Your task to perform on an android device: open app "Pinterest" Image 0: 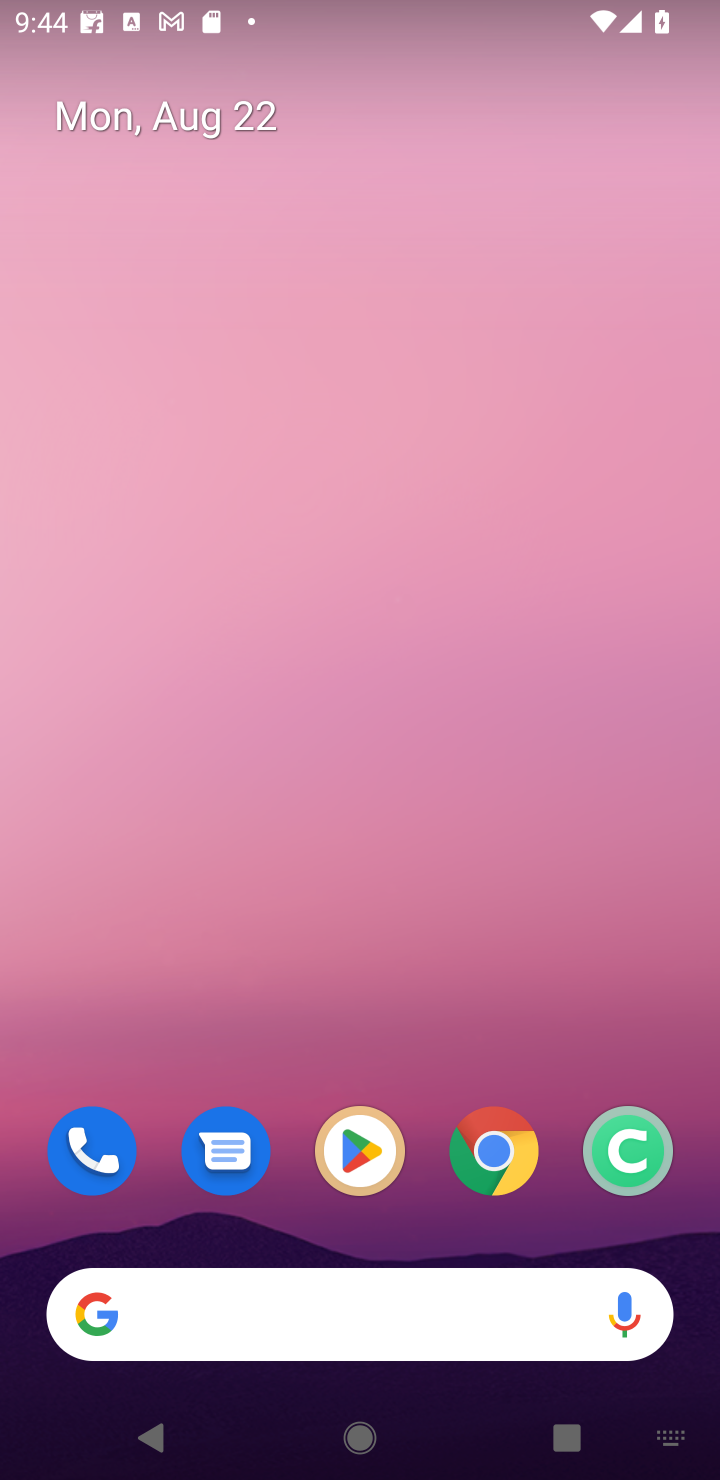
Step 0: press home button
Your task to perform on an android device: open app "Pinterest" Image 1: 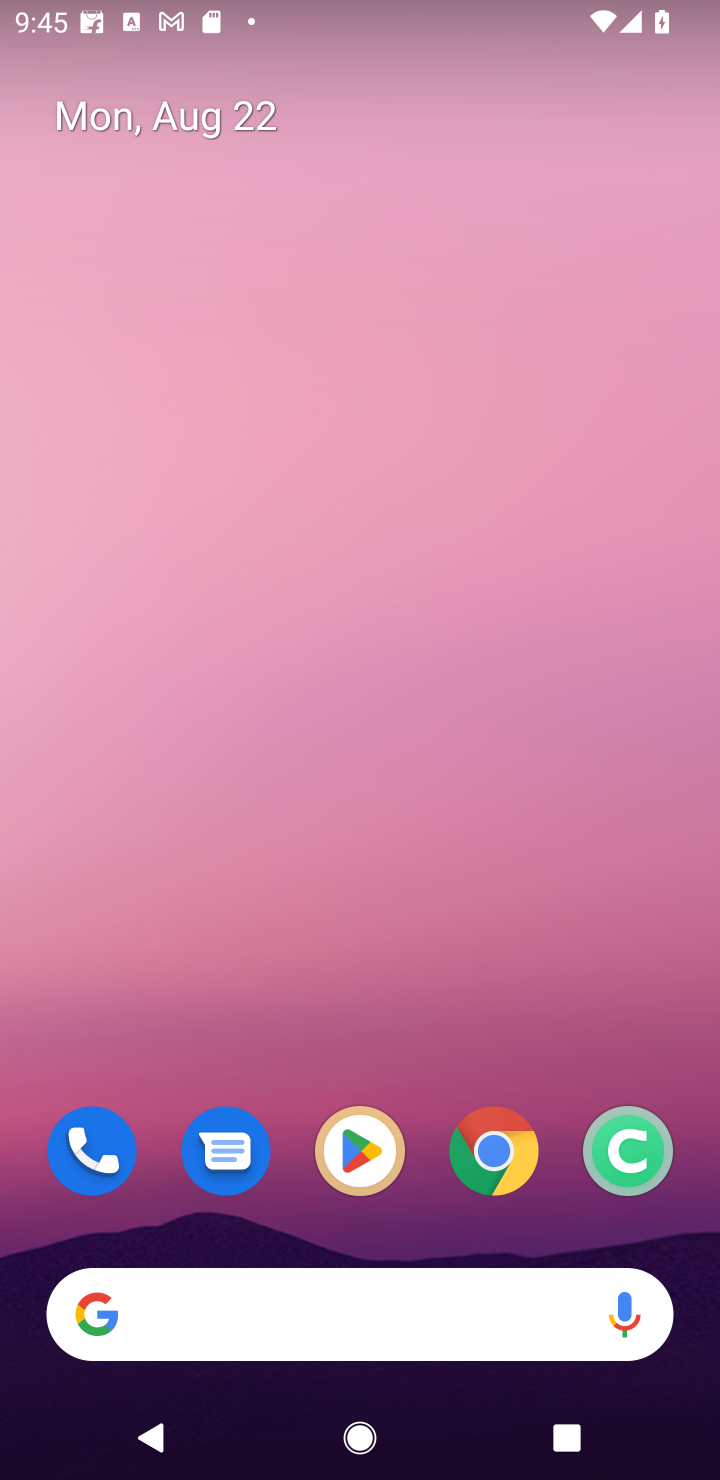
Step 1: click (363, 1157)
Your task to perform on an android device: open app "Pinterest" Image 2: 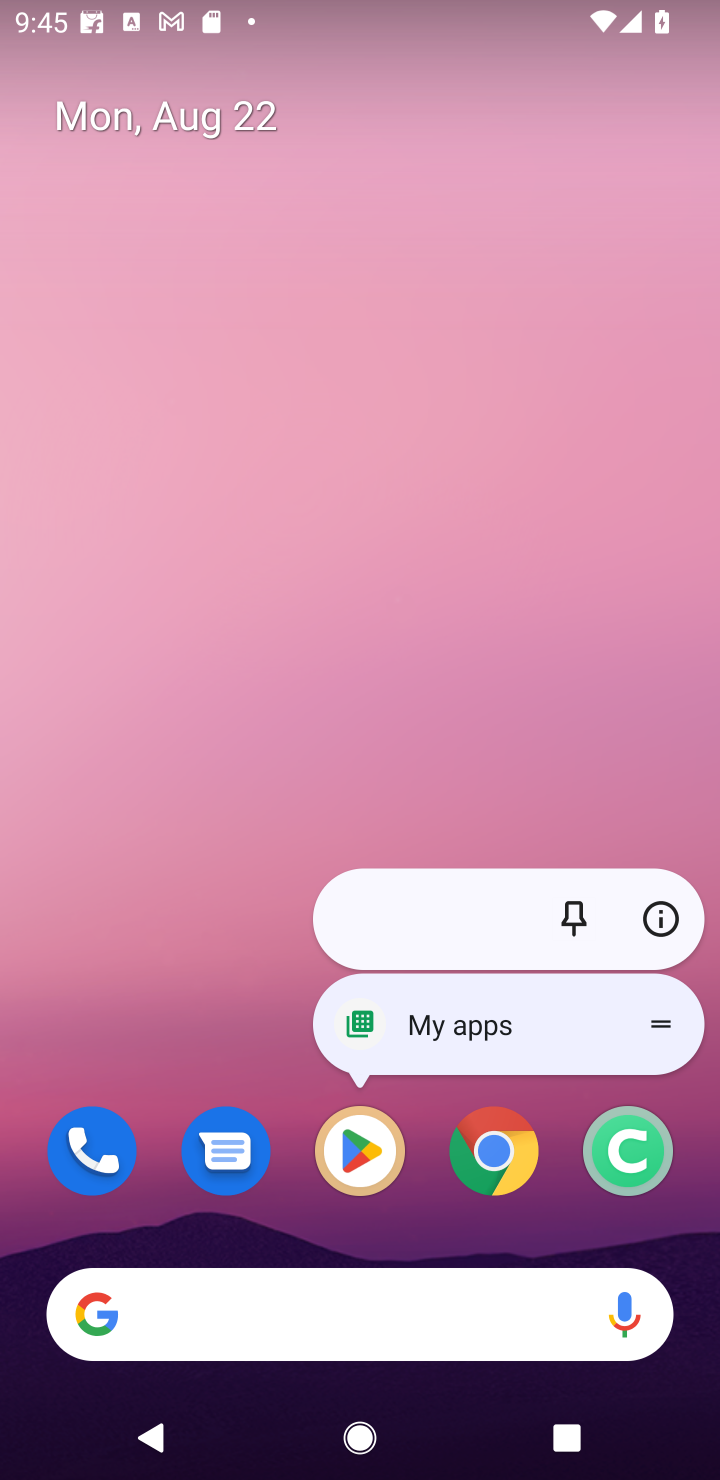
Step 2: click (363, 1171)
Your task to perform on an android device: open app "Pinterest" Image 3: 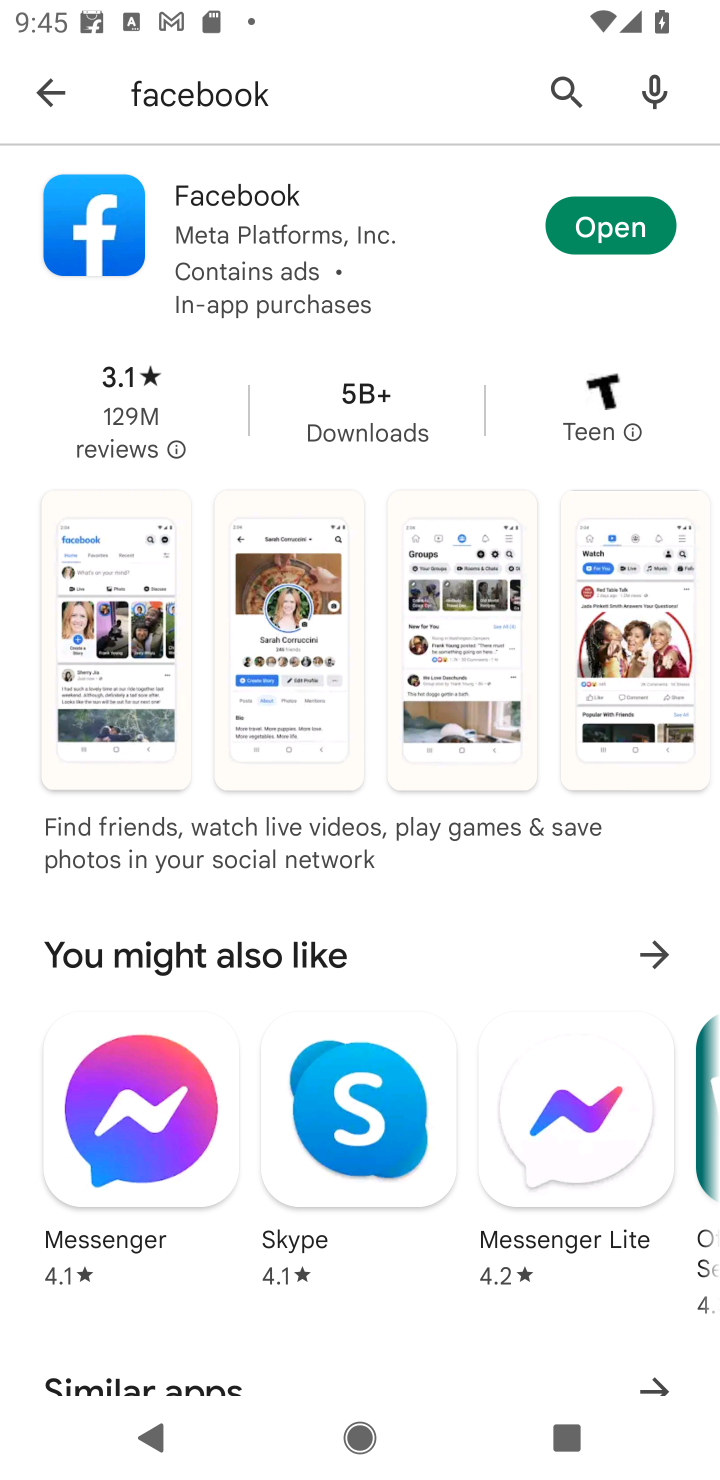
Step 3: click (556, 83)
Your task to perform on an android device: open app "Pinterest" Image 4: 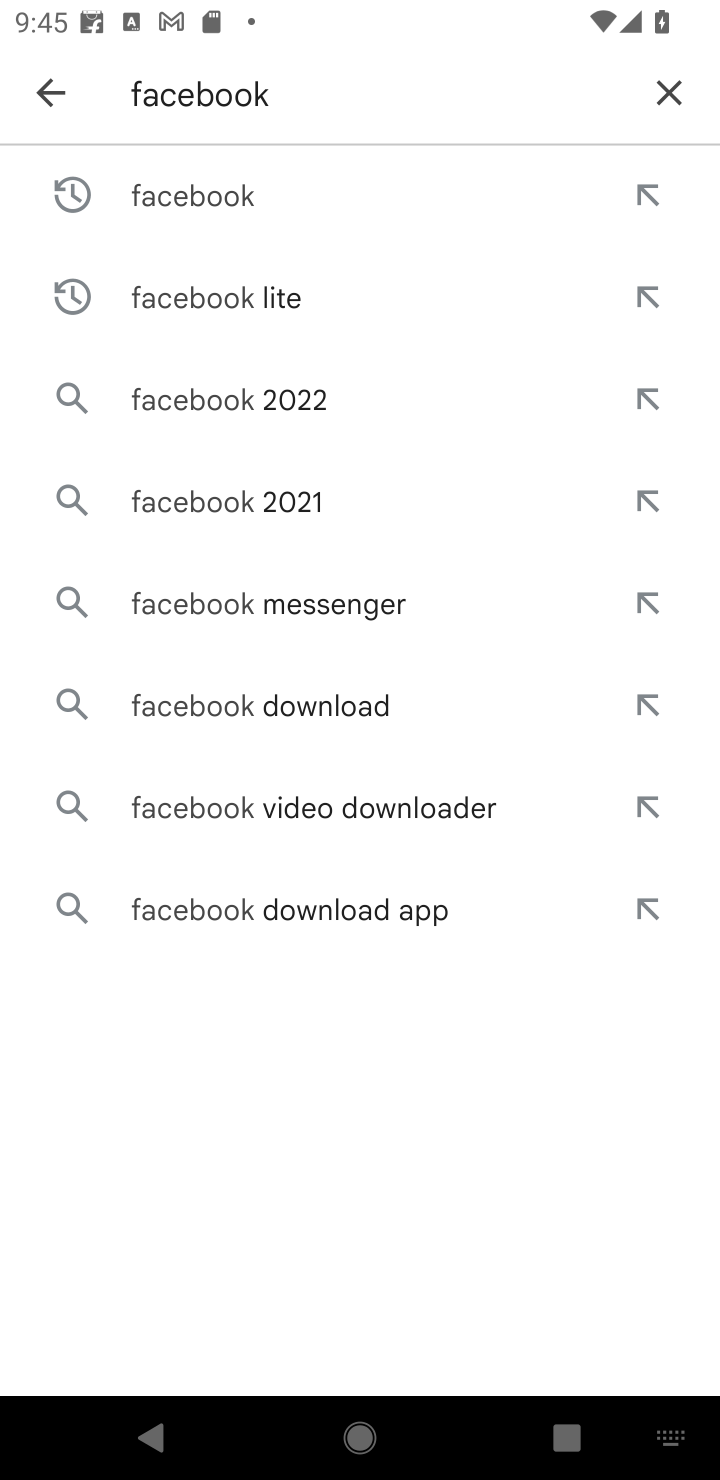
Step 4: click (659, 87)
Your task to perform on an android device: open app "Pinterest" Image 5: 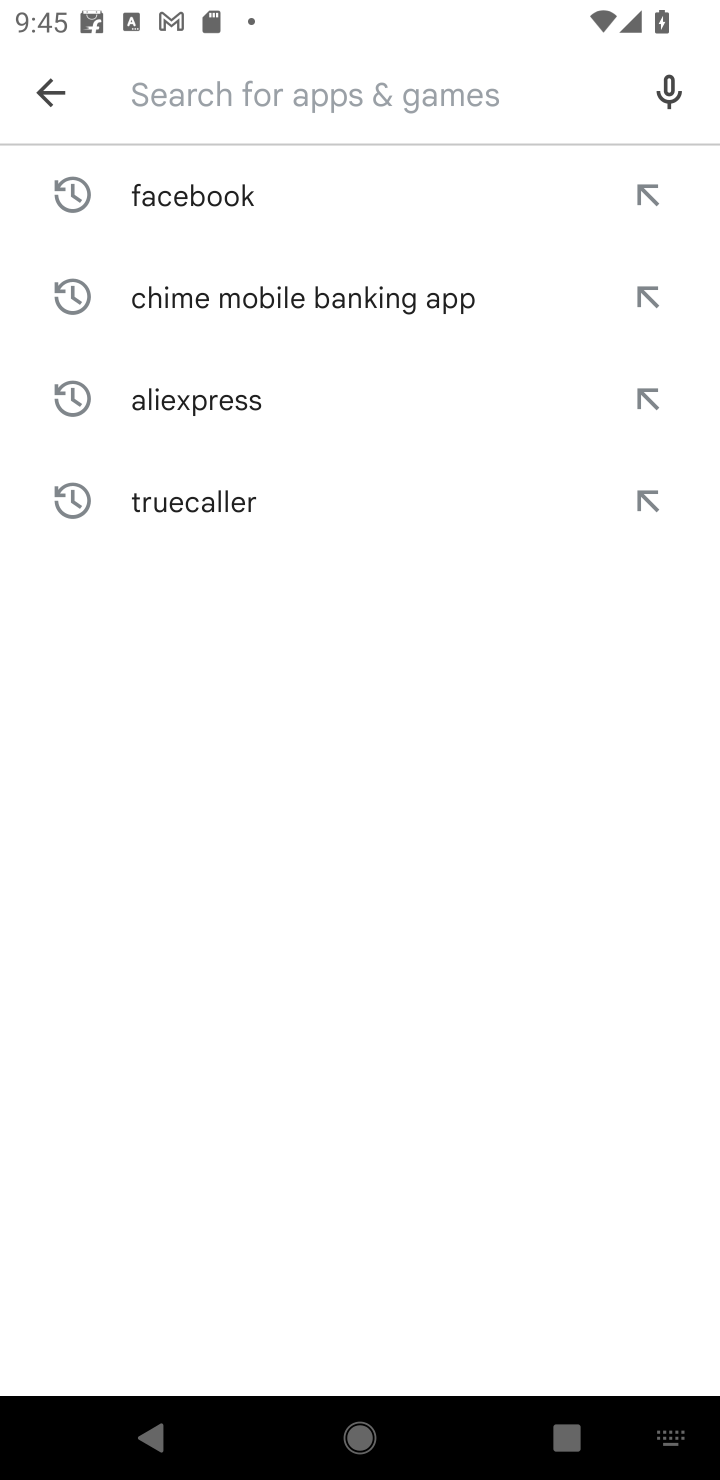
Step 5: type "Pinterest"
Your task to perform on an android device: open app "Pinterest" Image 6: 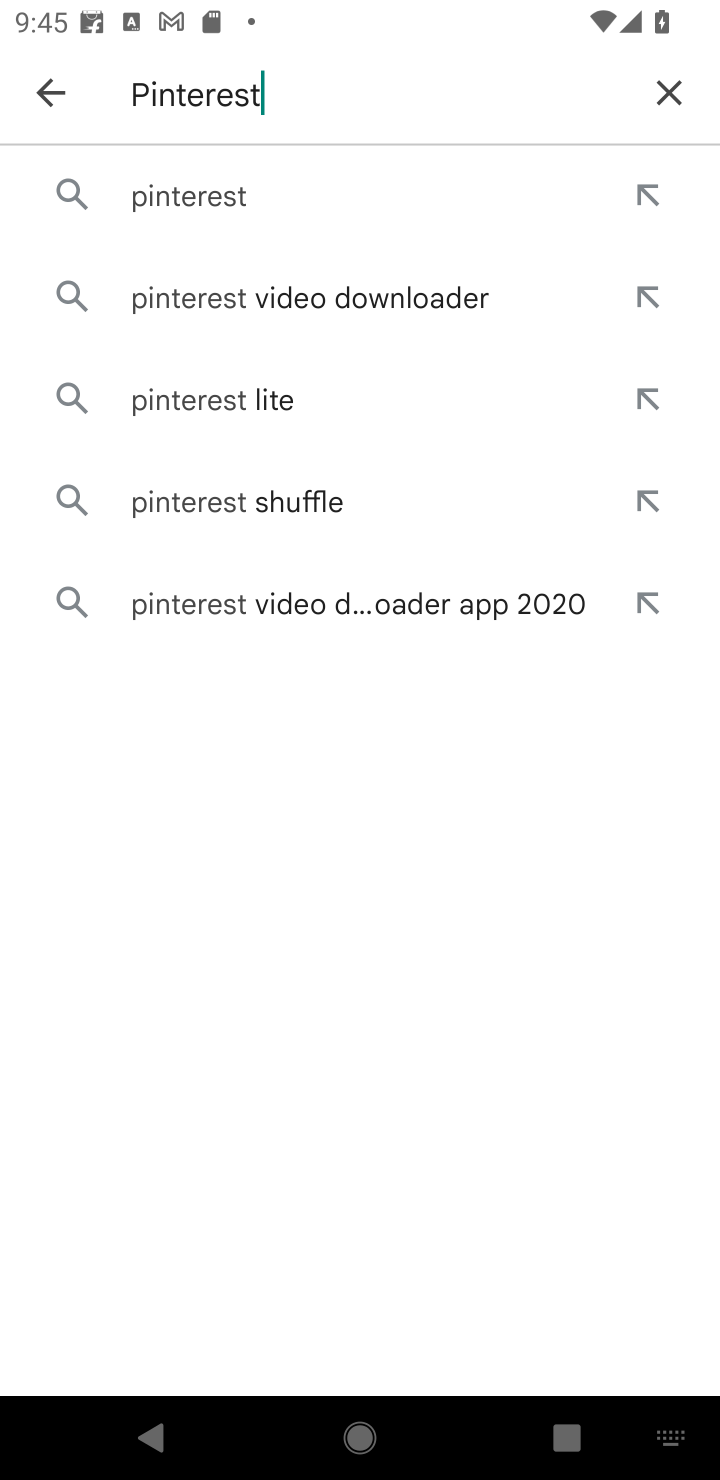
Step 6: click (184, 198)
Your task to perform on an android device: open app "Pinterest" Image 7: 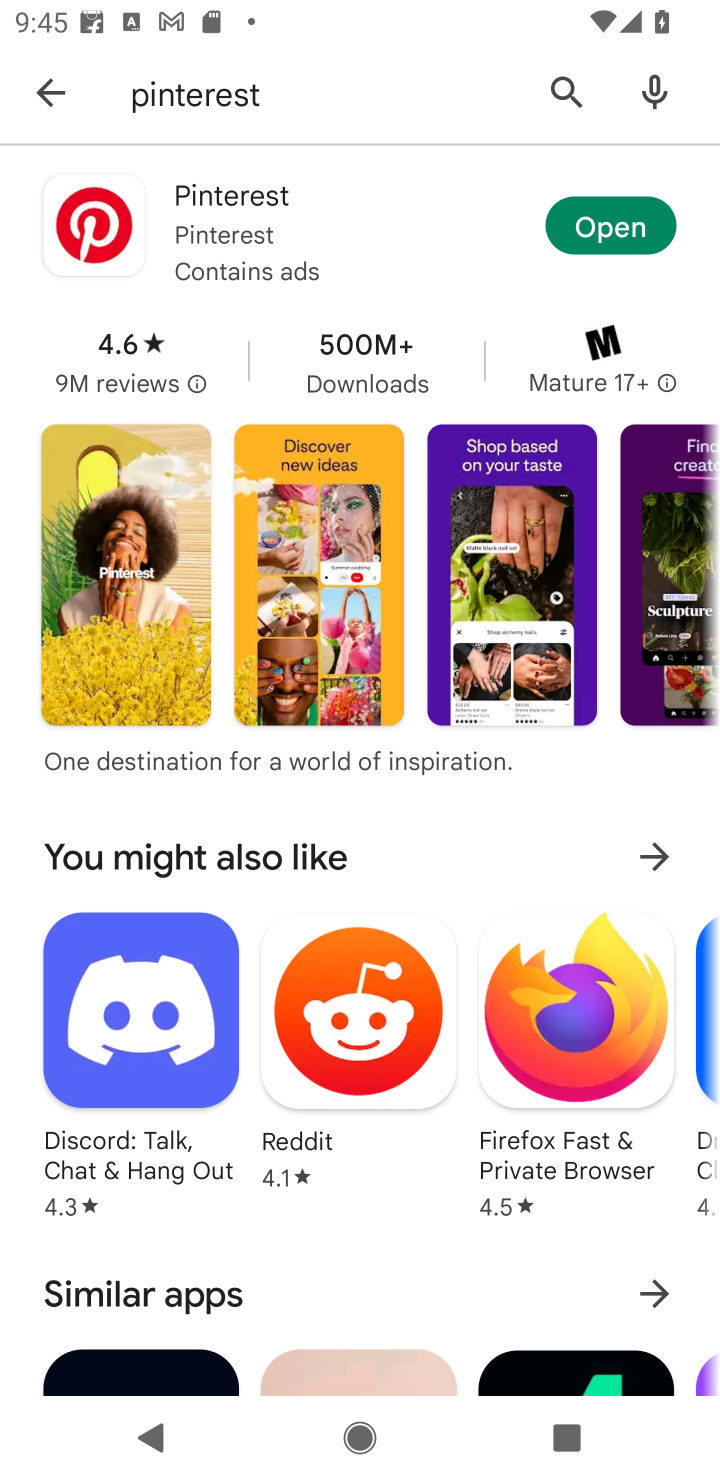
Step 7: click (601, 216)
Your task to perform on an android device: open app "Pinterest" Image 8: 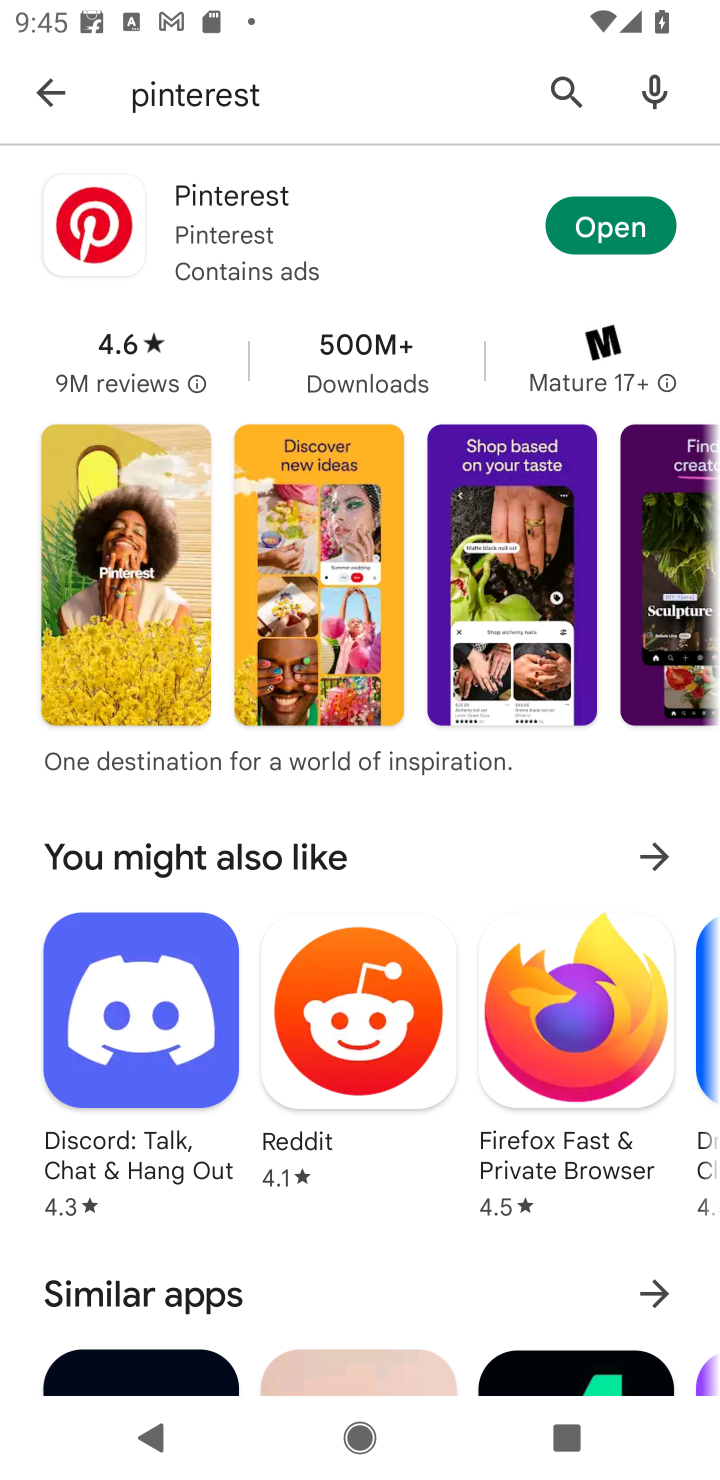
Step 8: click (613, 229)
Your task to perform on an android device: open app "Pinterest" Image 9: 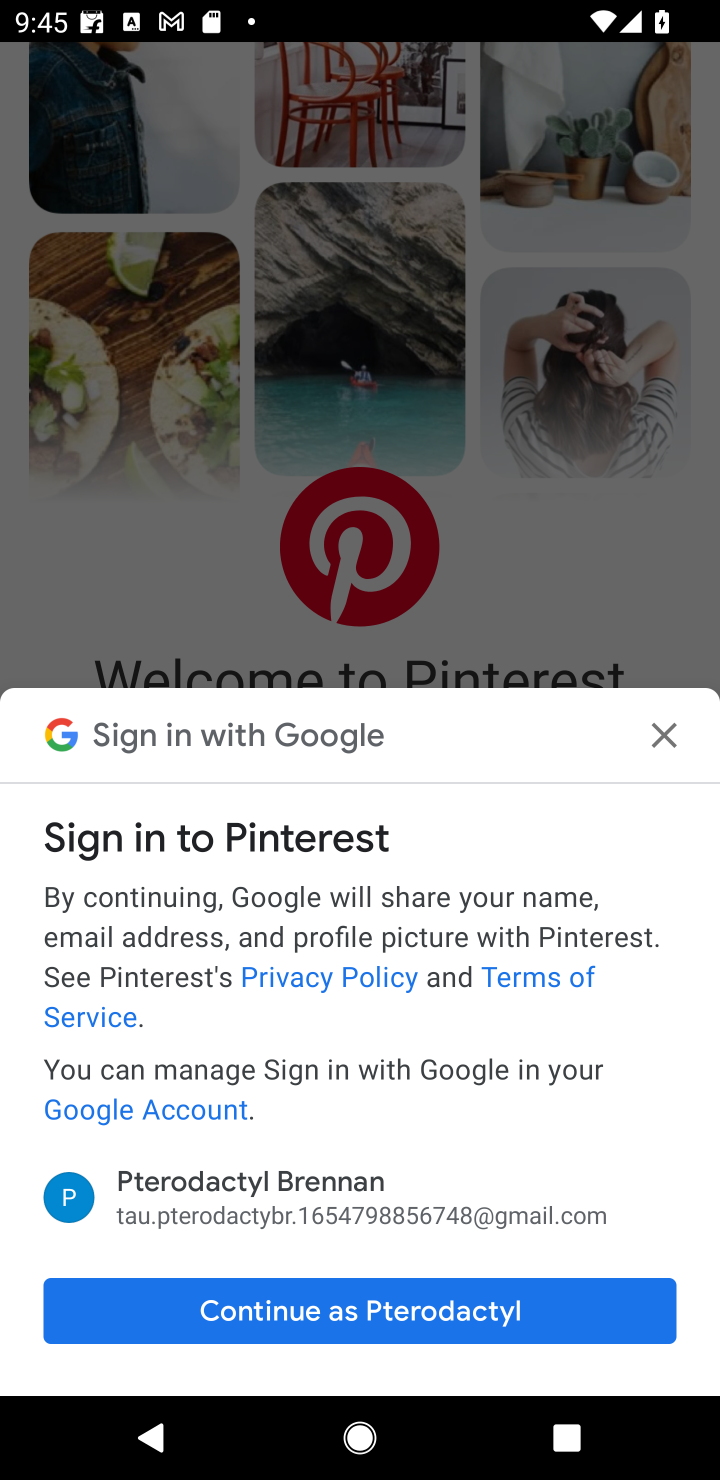
Step 9: click (654, 733)
Your task to perform on an android device: open app "Pinterest" Image 10: 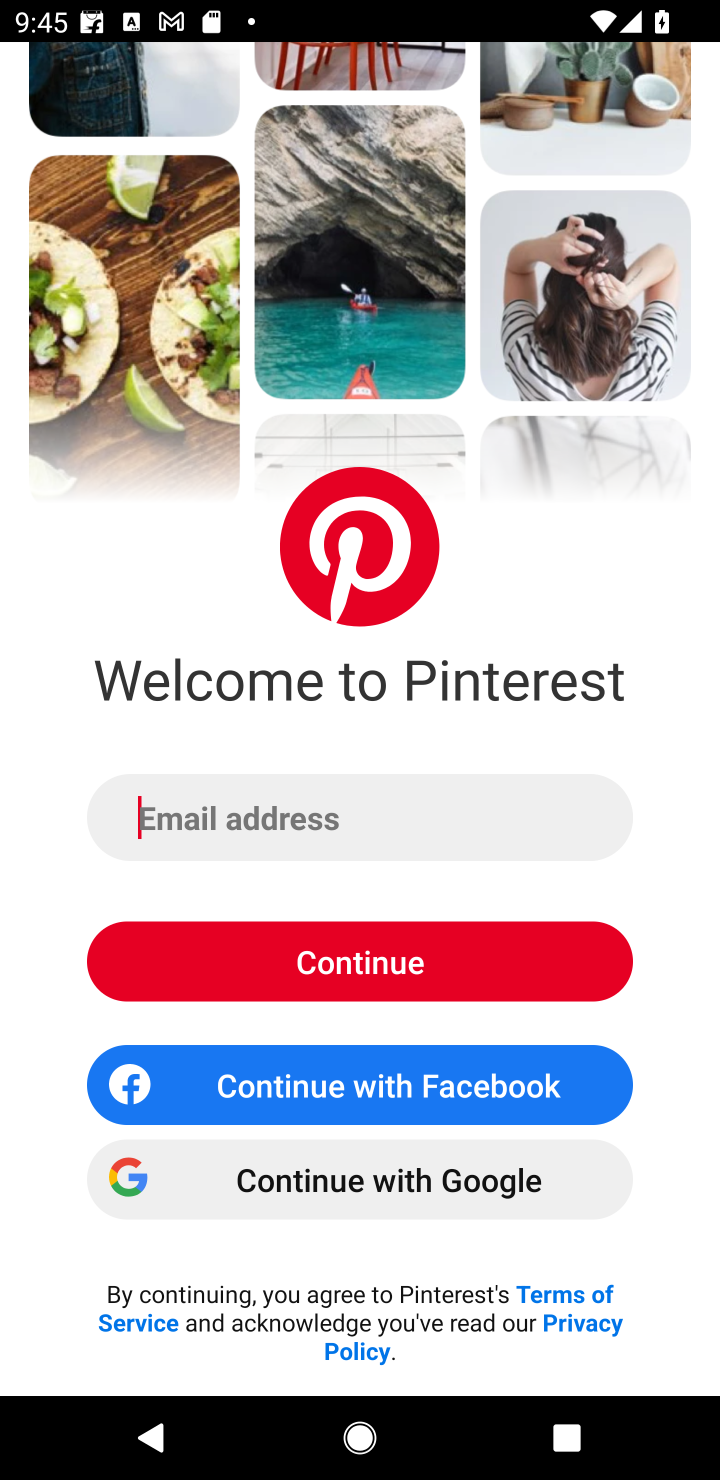
Step 10: task complete